Your task to perform on an android device: What's the weather going to be tomorrow? Image 0: 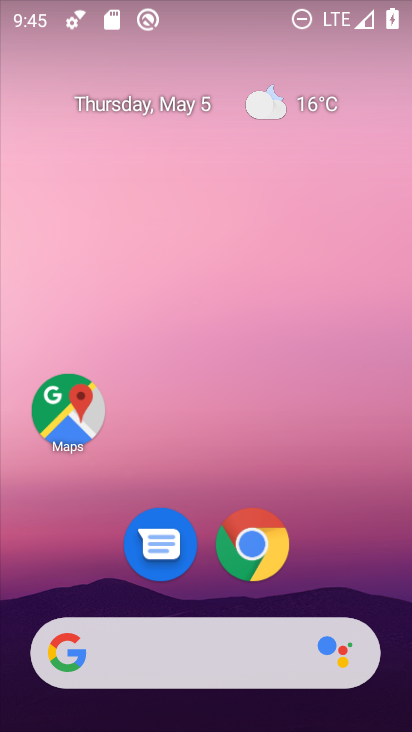
Step 0: click (318, 108)
Your task to perform on an android device: What's the weather going to be tomorrow? Image 1: 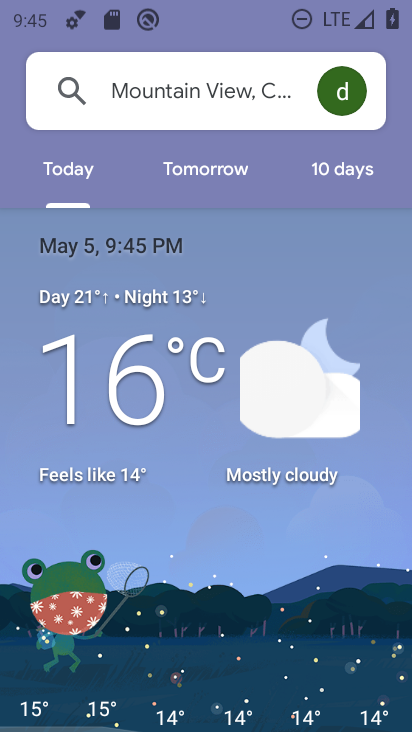
Step 1: click (220, 180)
Your task to perform on an android device: What's the weather going to be tomorrow? Image 2: 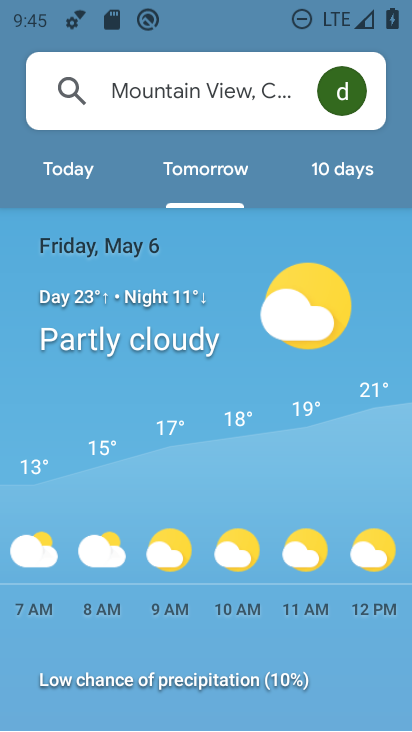
Step 2: task complete